Your task to perform on an android device: move a message to another label in the gmail app Image 0: 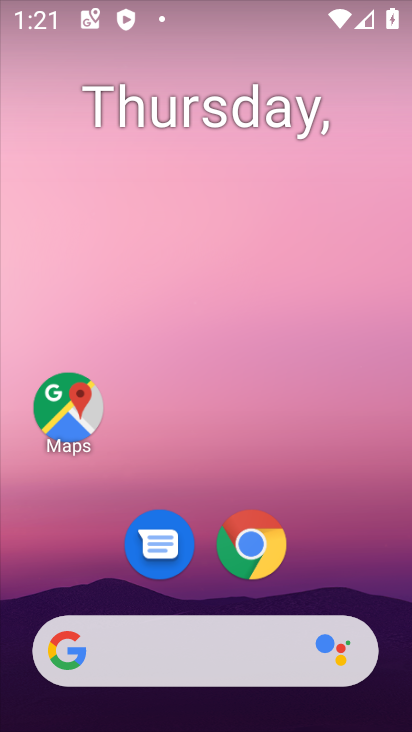
Step 0: drag from (192, 711) to (183, 87)
Your task to perform on an android device: move a message to another label in the gmail app Image 1: 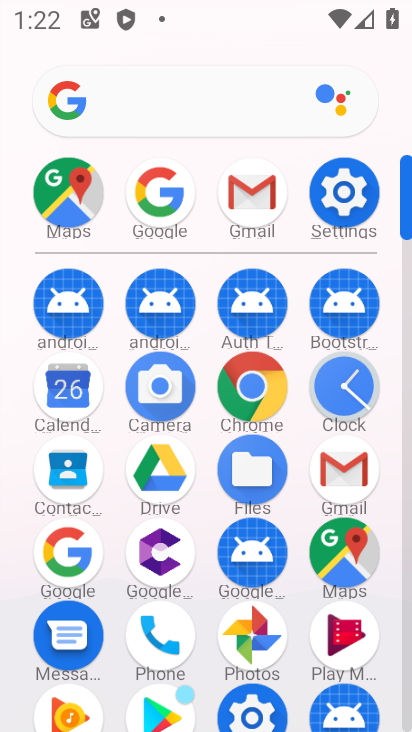
Step 1: click (257, 204)
Your task to perform on an android device: move a message to another label in the gmail app Image 2: 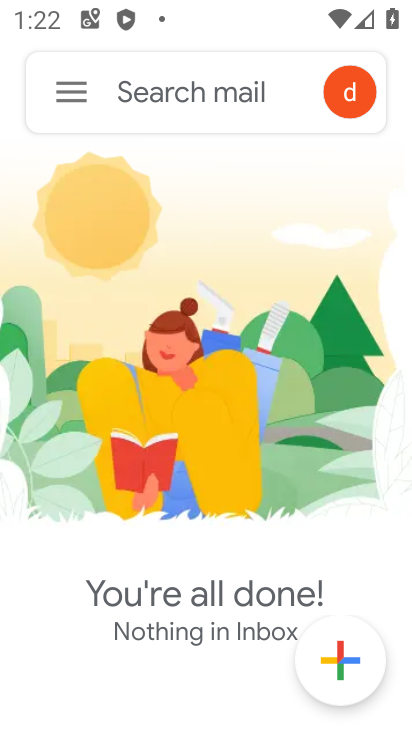
Step 2: task complete